Your task to perform on an android device: Open Yahoo.com Image 0: 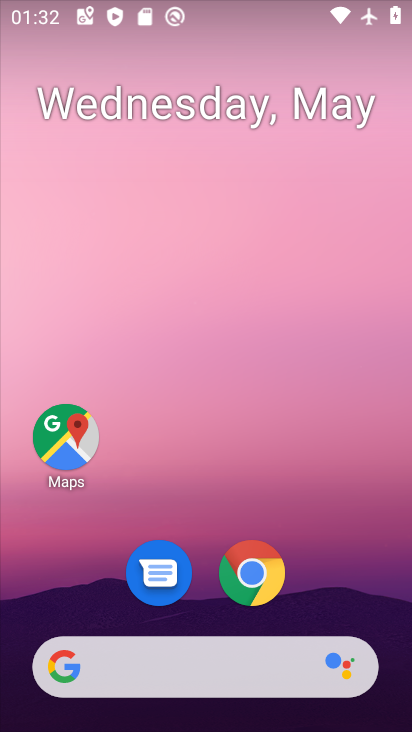
Step 0: click (253, 548)
Your task to perform on an android device: Open Yahoo.com Image 1: 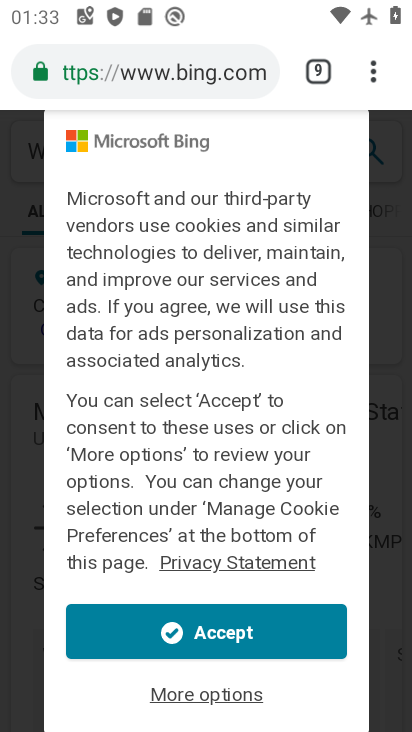
Step 1: click (361, 55)
Your task to perform on an android device: Open Yahoo.com Image 2: 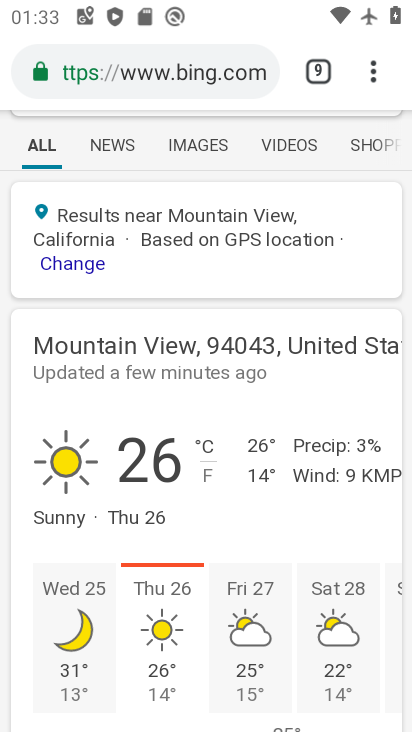
Step 2: click (367, 70)
Your task to perform on an android device: Open Yahoo.com Image 3: 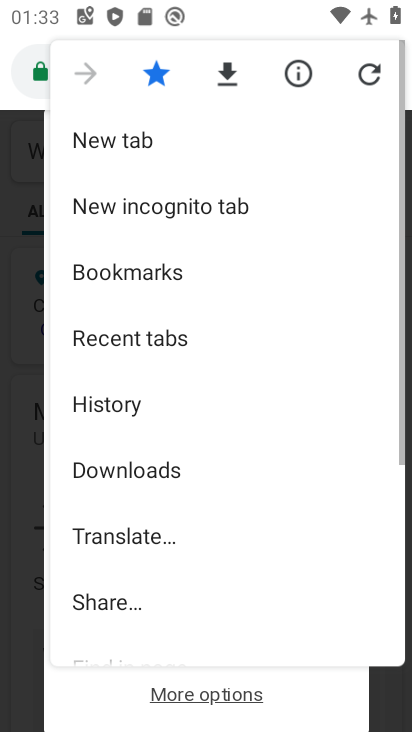
Step 3: click (107, 138)
Your task to perform on an android device: Open Yahoo.com Image 4: 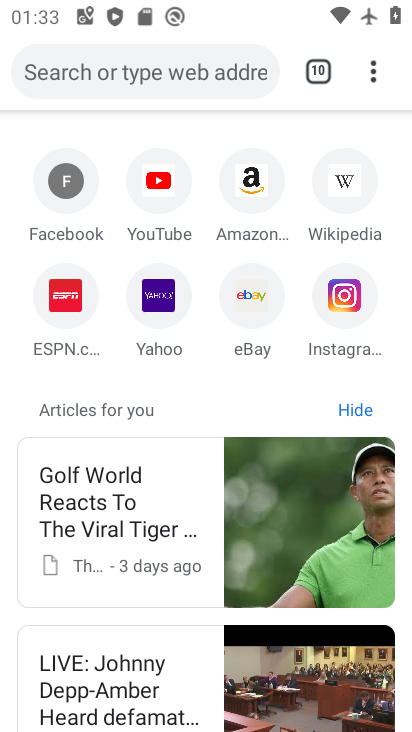
Step 4: click (156, 298)
Your task to perform on an android device: Open Yahoo.com Image 5: 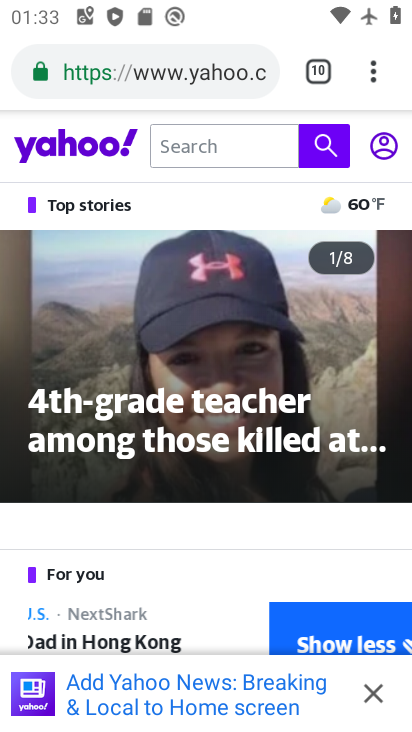
Step 5: task complete